Your task to perform on an android device: Open Google Chrome and click the shortcut for Amazon.com Image 0: 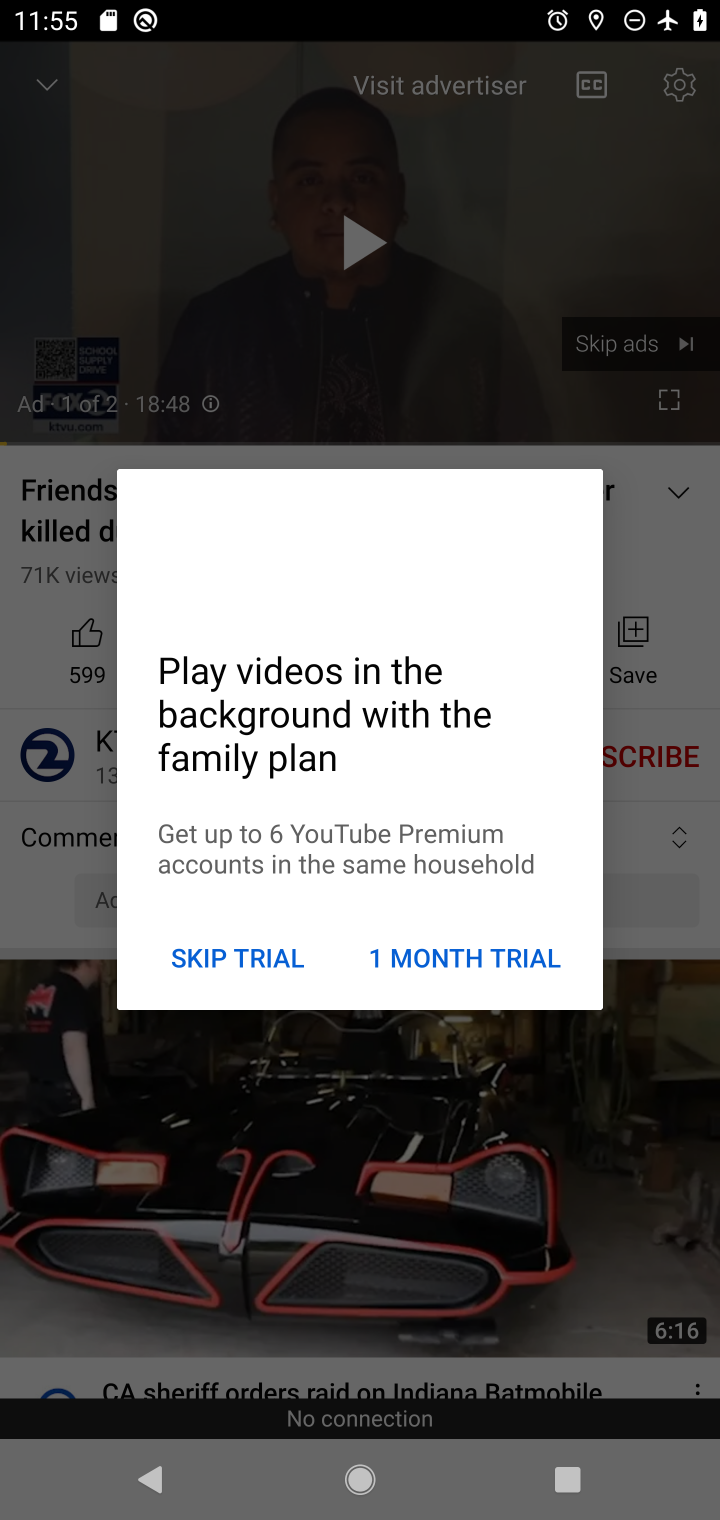
Step 0: press home button
Your task to perform on an android device: Open Google Chrome and click the shortcut for Amazon.com Image 1: 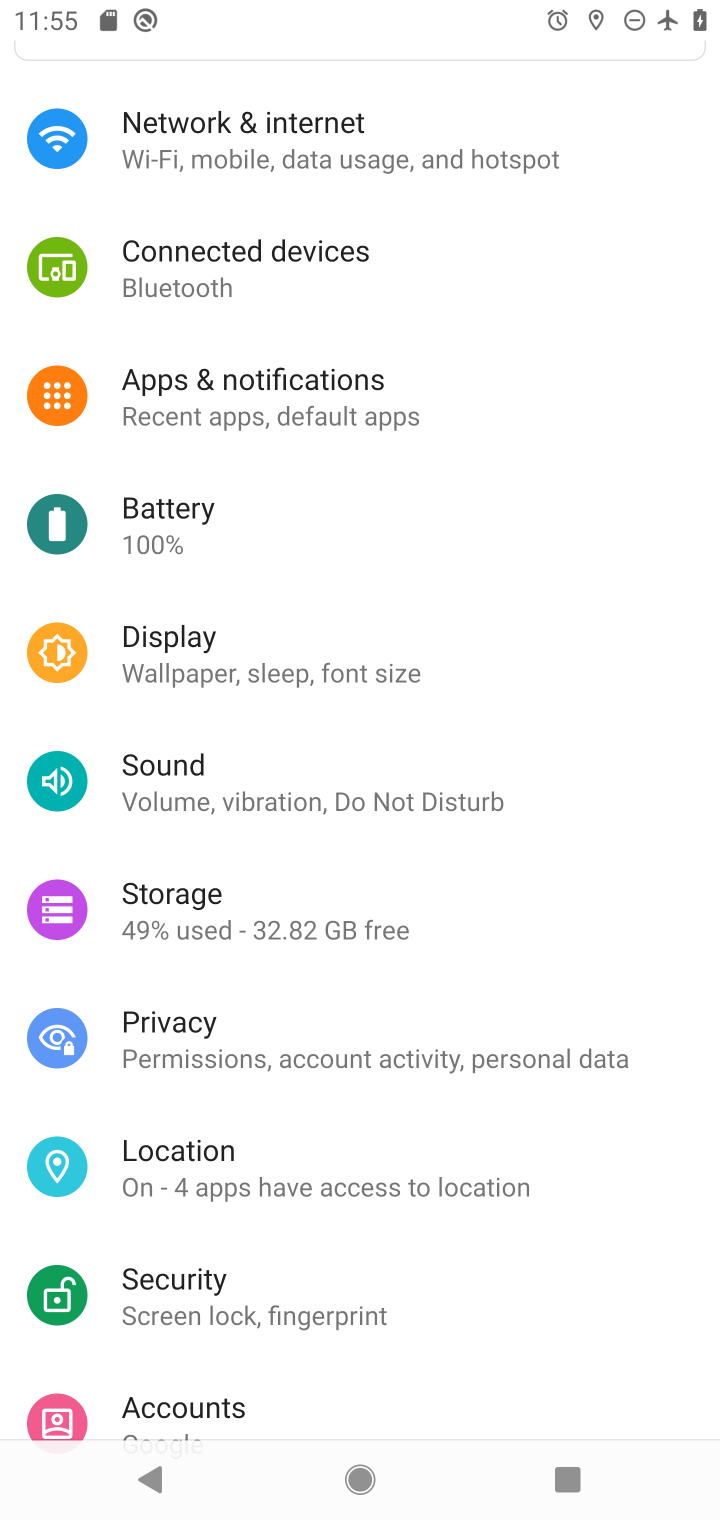
Step 1: press home button
Your task to perform on an android device: Open Google Chrome and click the shortcut for Amazon.com Image 2: 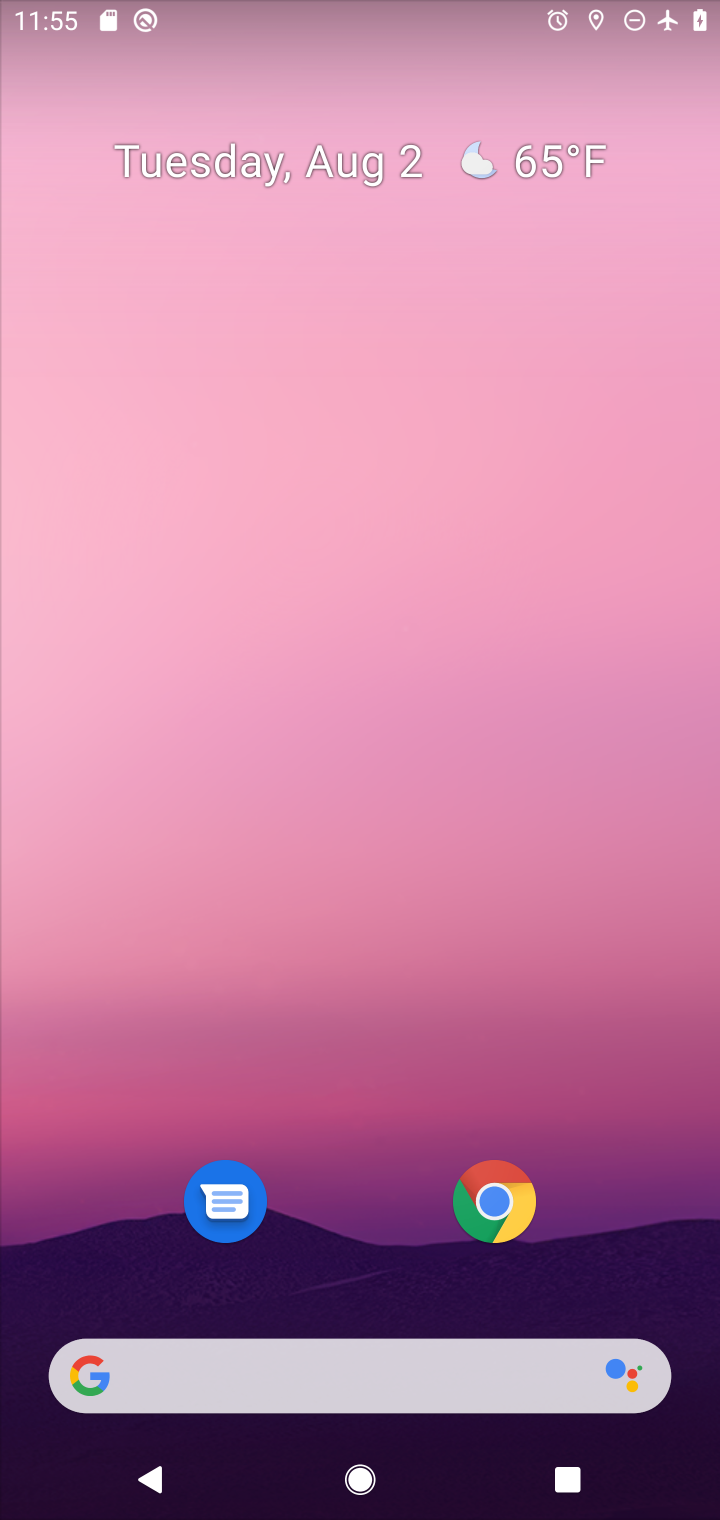
Step 2: press back button
Your task to perform on an android device: Open Google Chrome and click the shortcut for Amazon.com Image 3: 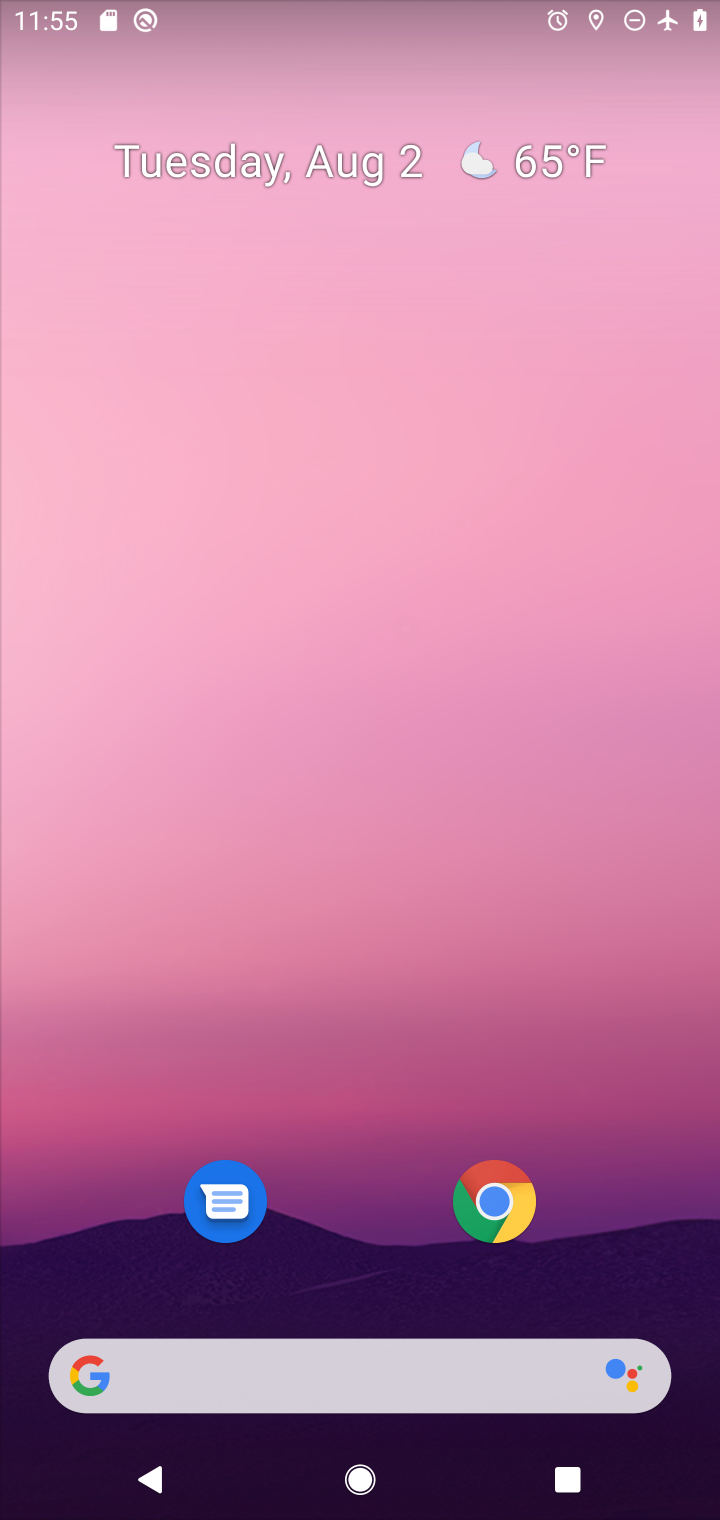
Step 3: click (458, 1231)
Your task to perform on an android device: Open Google Chrome and click the shortcut for Amazon.com Image 4: 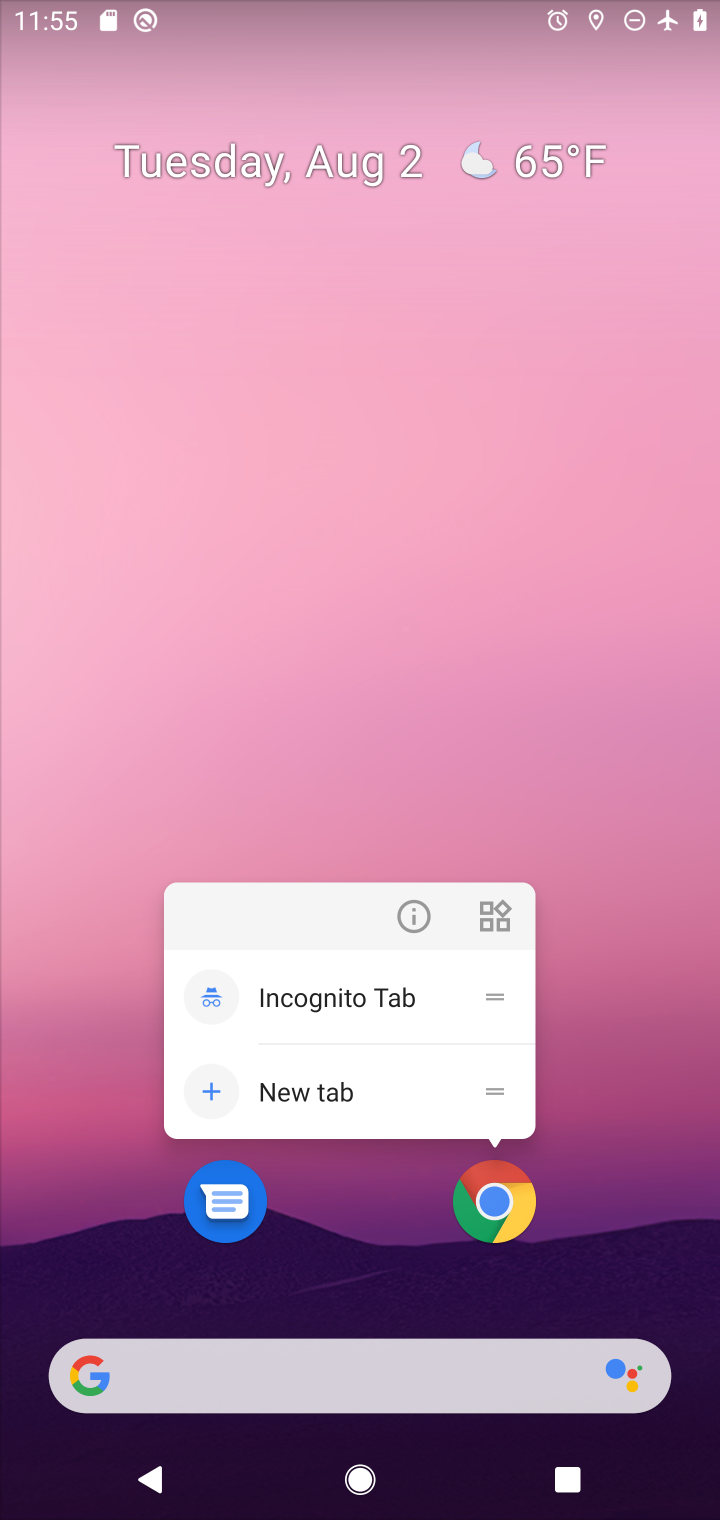
Step 4: click (481, 1203)
Your task to perform on an android device: Open Google Chrome and click the shortcut for Amazon.com Image 5: 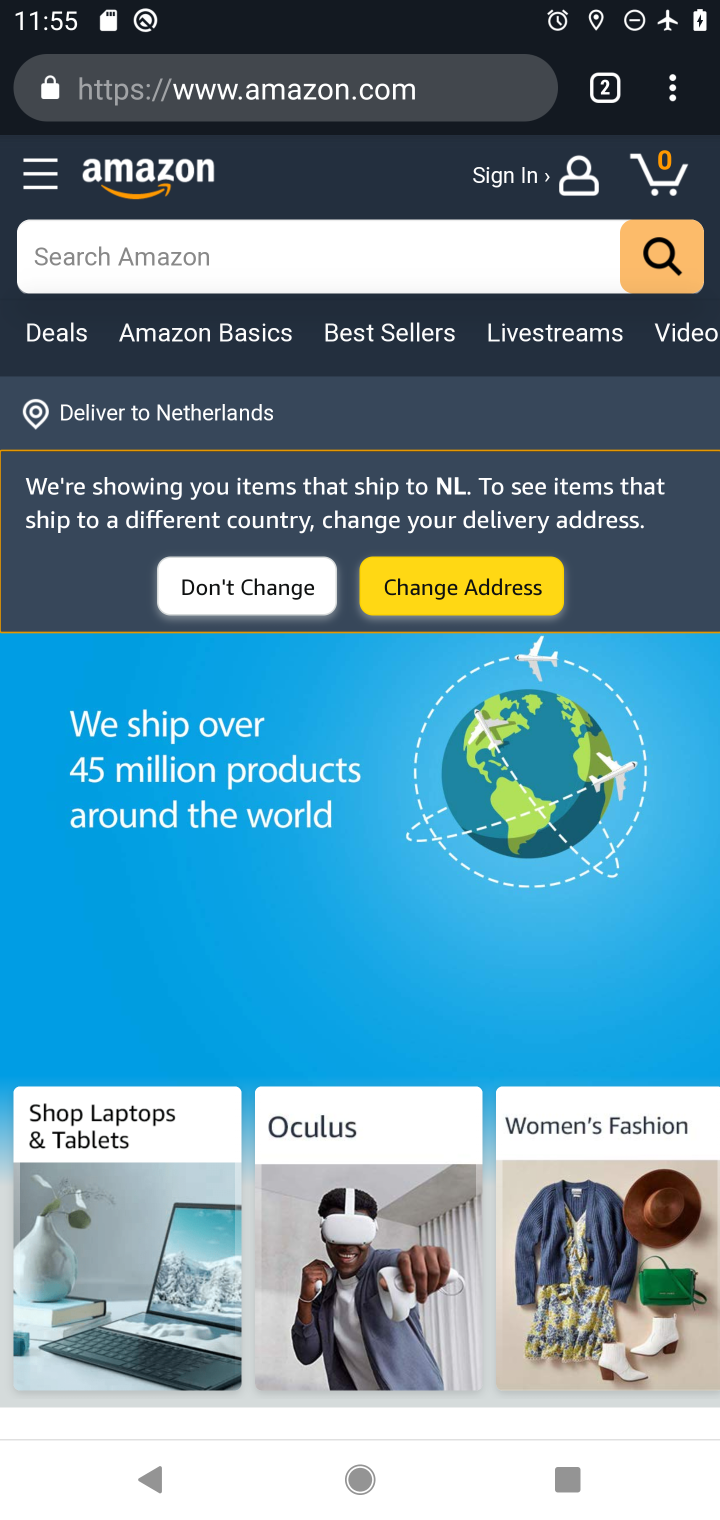
Step 5: task complete